Your task to perform on an android device: turn notification dots off Image 0: 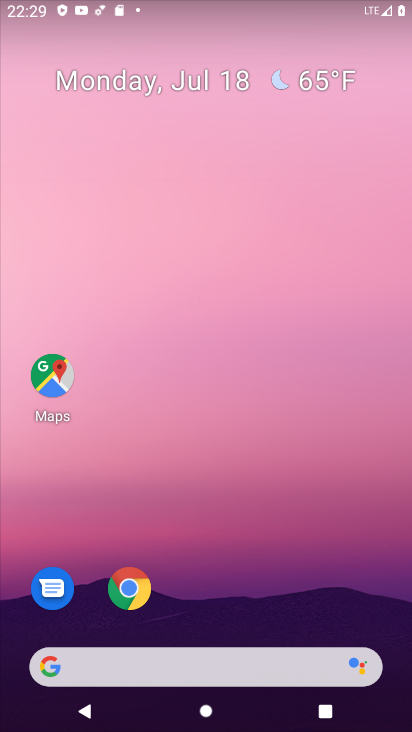
Step 0: press home button
Your task to perform on an android device: turn notification dots off Image 1: 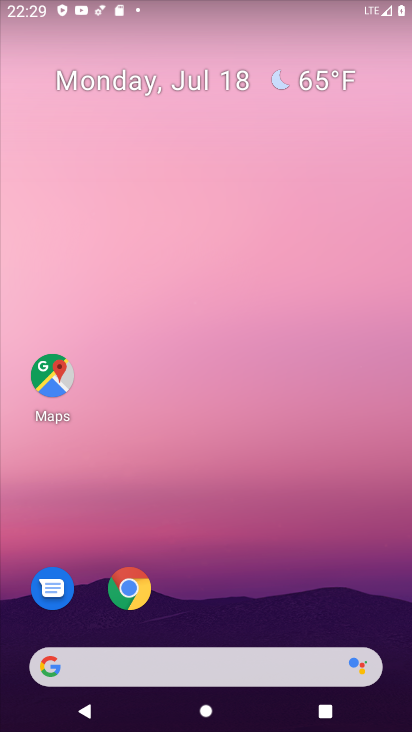
Step 1: drag from (237, 568) to (275, 46)
Your task to perform on an android device: turn notification dots off Image 2: 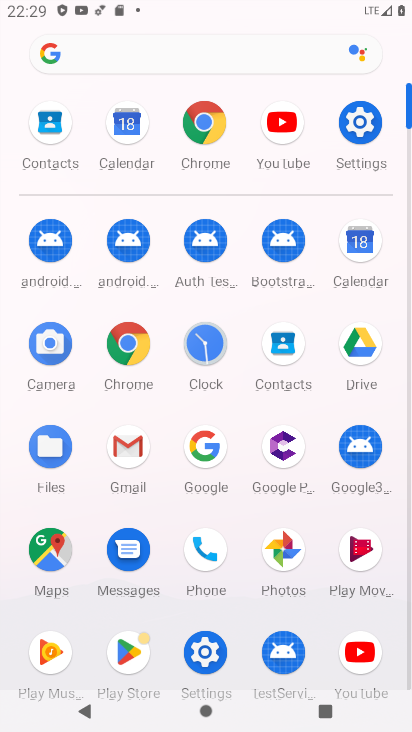
Step 2: click (353, 127)
Your task to perform on an android device: turn notification dots off Image 3: 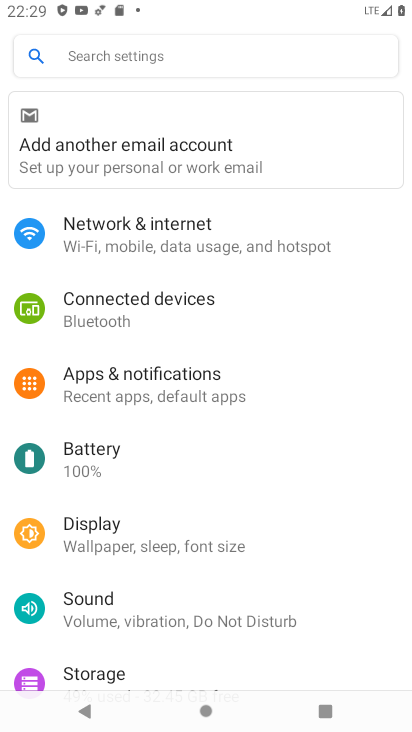
Step 3: click (121, 389)
Your task to perform on an android device: turn notification dots off Image 4: 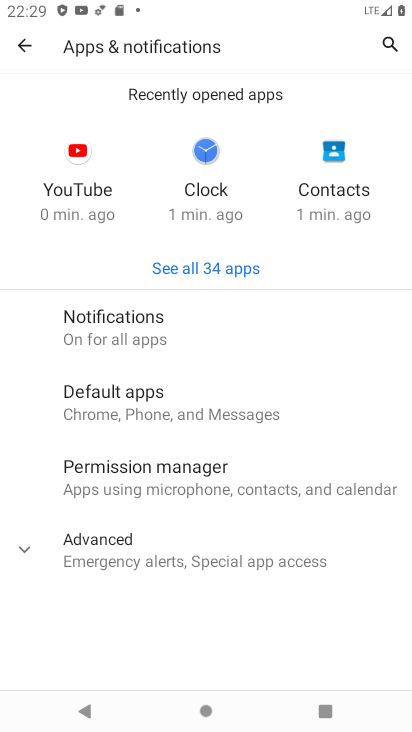
Step 4: click (124, 323)
Your task to perform on an android device: turn notification dots off Image 5: 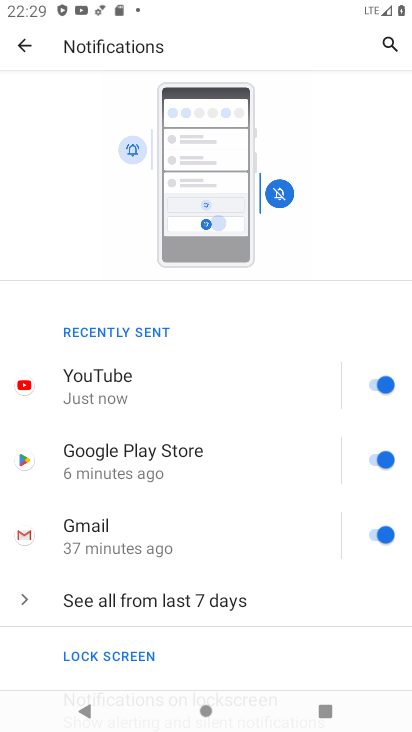
Step 5: drag from (306, 601) to (277, 186)
Your task to perform on an android device: turn notification dots off Image 6: 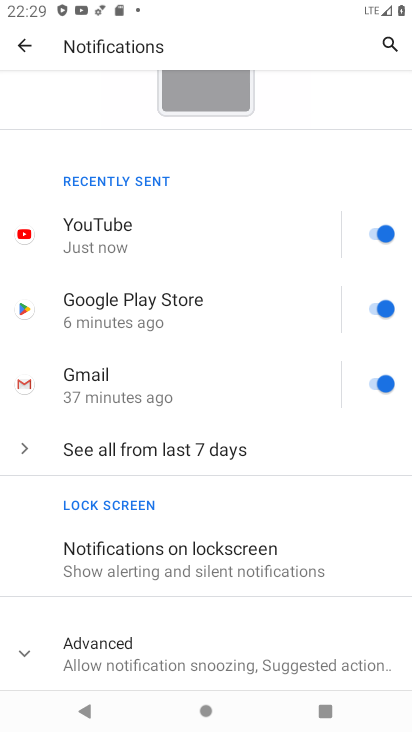
Step 6: click (20, 653)
Your task to perform on an android device: turn notification dots off Image 7: 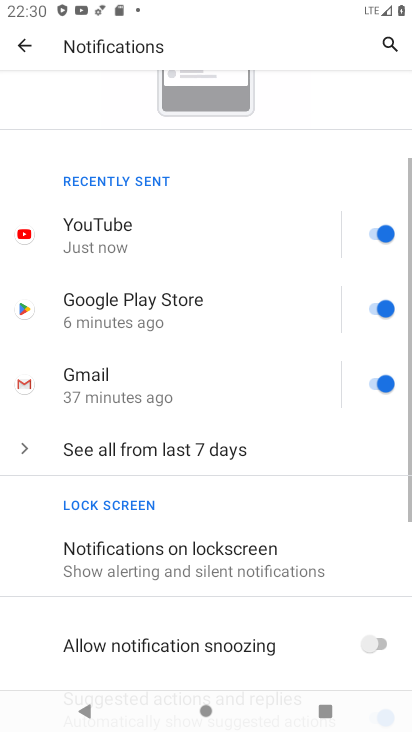
Step 7: drag from (319, 634) to (342, 245)
Your task to perform on an android device: turn notification dots off Image 8: 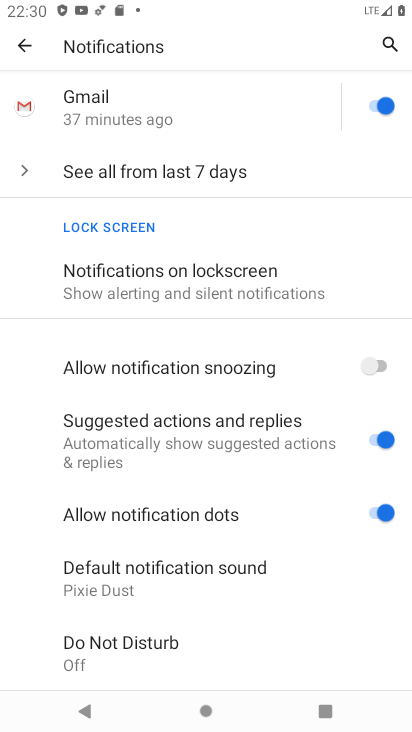
Step 8: click (387, 509)
Your task to perform on an android device: turn notification dots off Image 9: 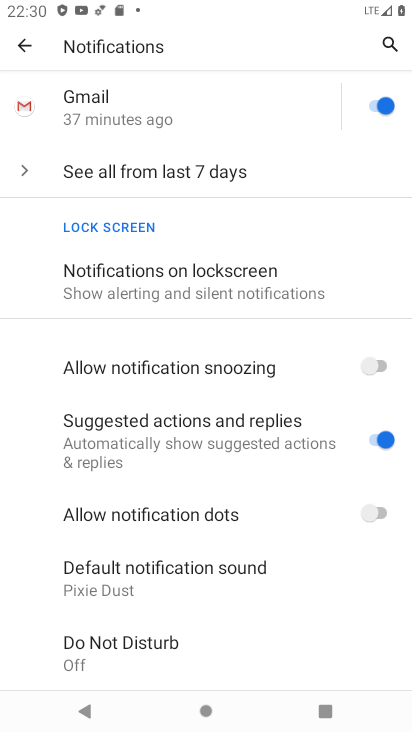
Step 9: task complete